Your task to perform on an android device: See recent photos Image 0: 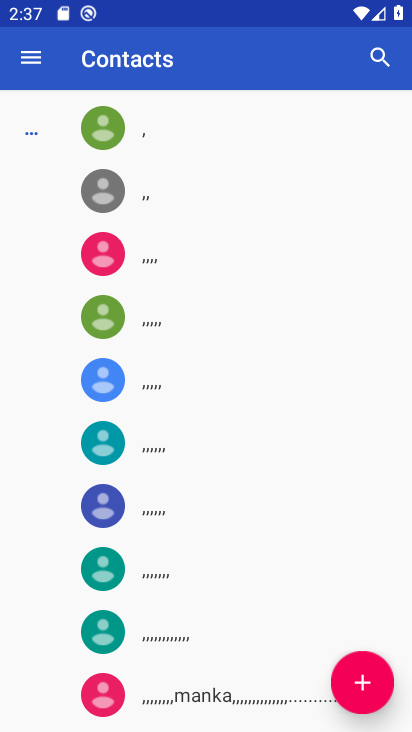
Step 0: press home button
Your task to perform on an android device: See recent photos Image 1: 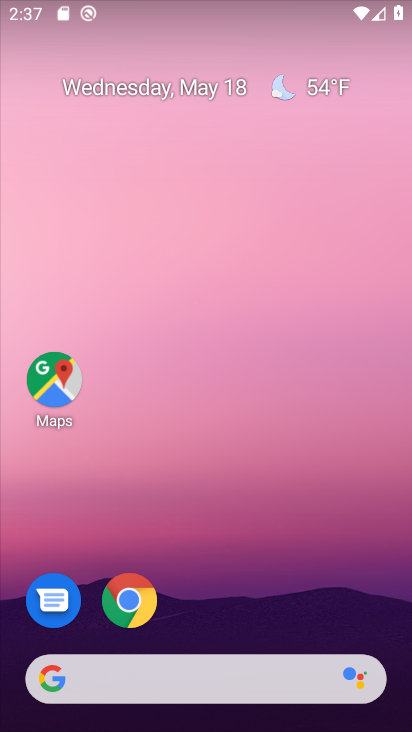
Step 1: drag from (229, 612) to (263, 46)
Your task to perform on an android device: See recent photos Image 2: 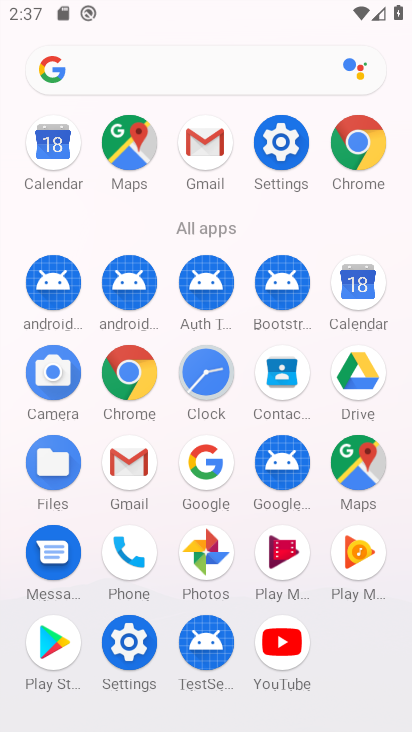
Step 2: click (215, 560)
Your task to perform on an android device: See recent photos Image 3: 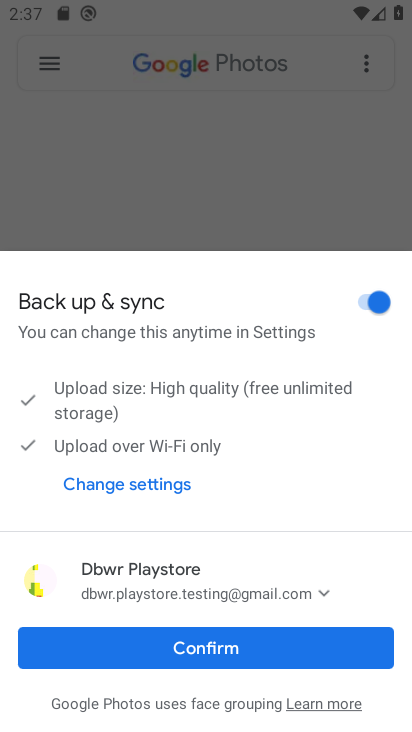
Step 3: click (162, 656)
Your task to perform on an android device: See recent photos Image 4: 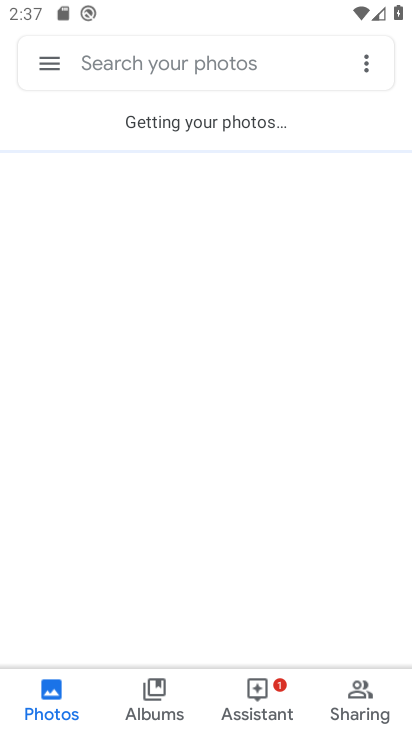
Step 4: drag from (266, 487) to (275, 378)
Your task to perform on an android device: See recent photos Image 5: 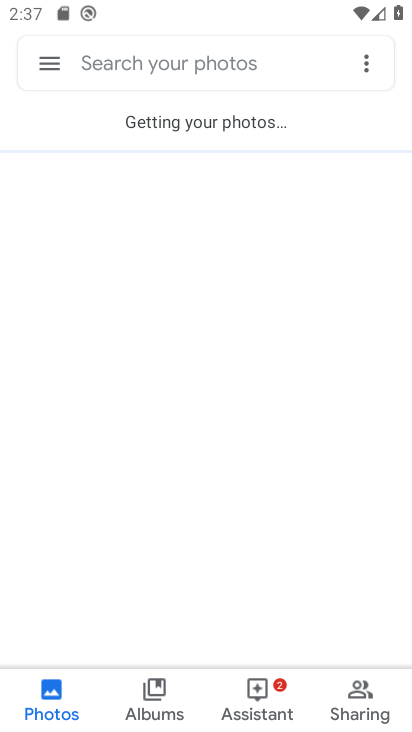
Step 5: drag from (219, 494) to (220, 350)
Your task to perform on an android device: See recent photos Image 6: 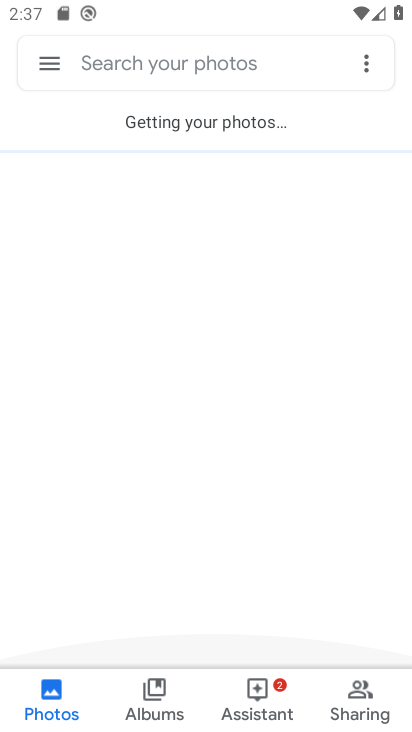
Step 6: drag from (220, 346) to (208, 446)
Your task to perform on an android device: See recent photos Image 7: 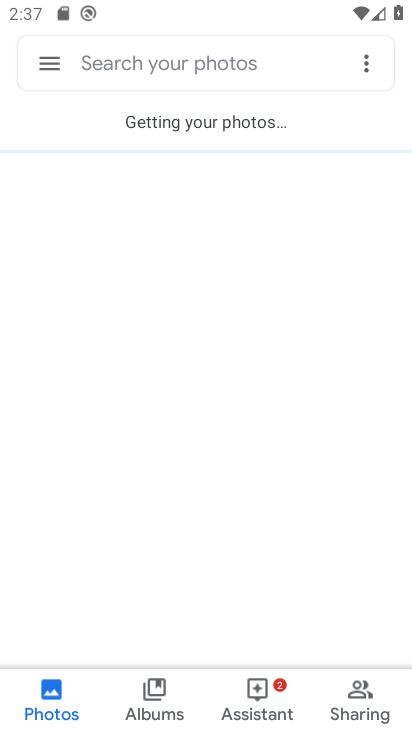
Step 7: click (44, 59)
Your task to perform on an android device: See recent photos Image 8: 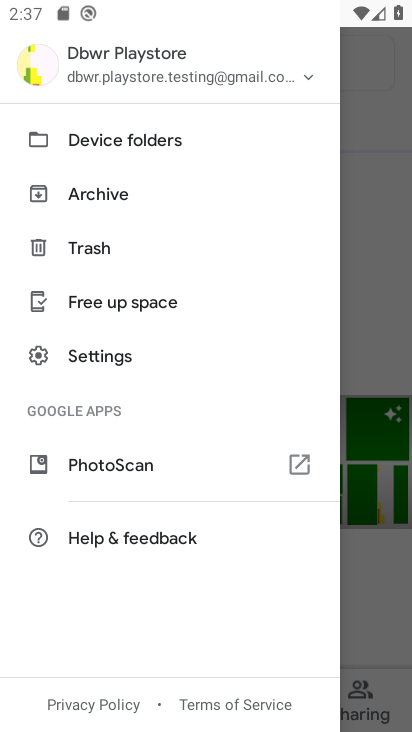
Step 8: click (377, 282)
Your task to perform on an android device: See recent photos Image 9: 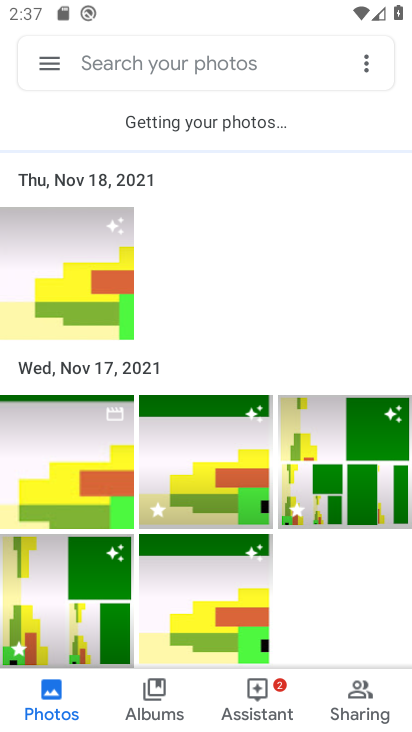
Step 9: task complete